Your task to perform on an android device: move a message to another label in the gmail app Image 0: 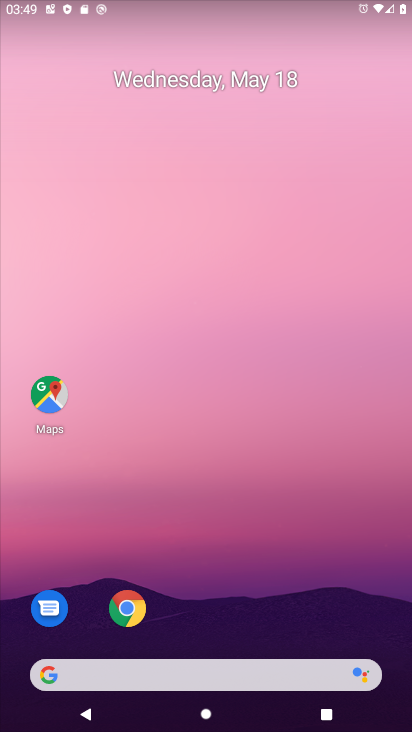
Step 0: drag from (202, 617) to (185, 3)
Your task to perform on an android device: move a message to another label in the gmail app Image 1: 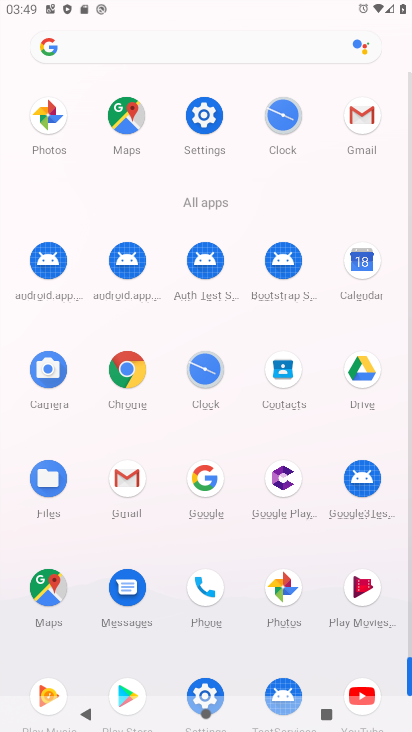
Step 1: click (362, 120)
Your task to perform on an android device: move a message to another label in the gmail app Image 2: 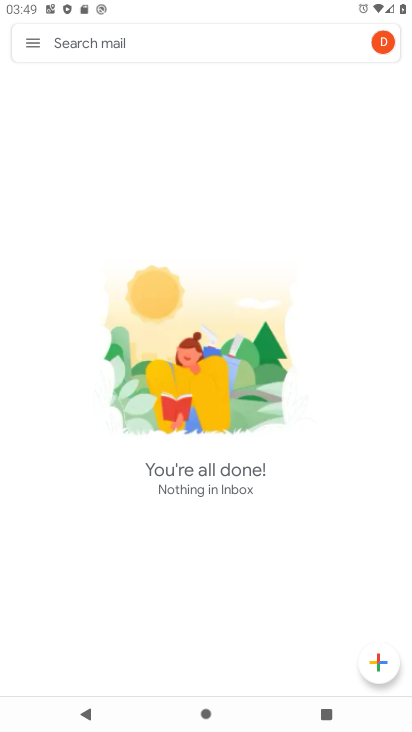
Step 2: task complete